Your task to perform on an android device: toggle javascript in the chrome app Image 0: 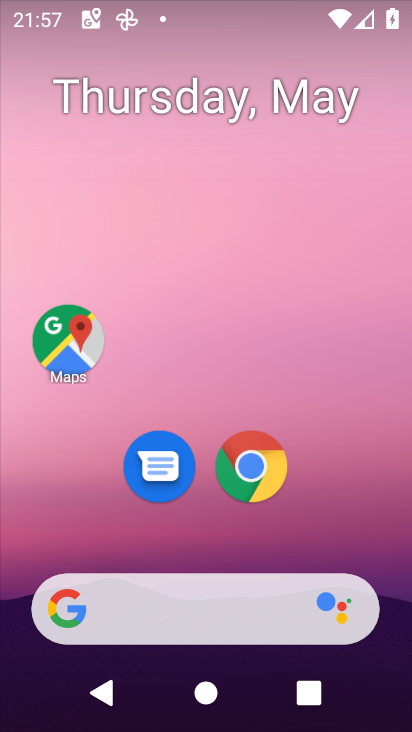
Step 0: click (283, 503)
Your task to perform on an android device: toggle javascript in the chrome app Image 1: 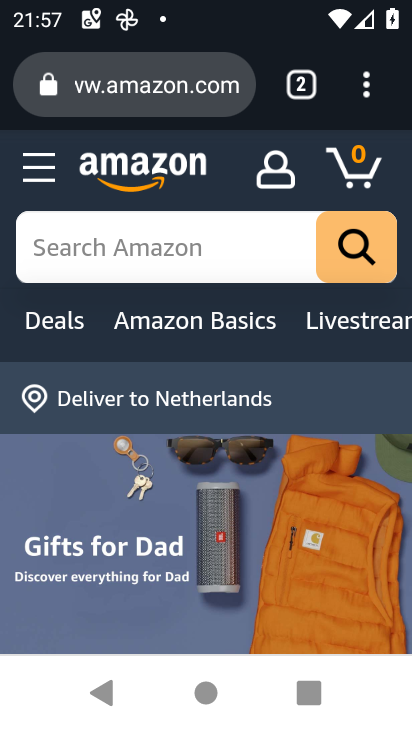
Step 1: click (368, 105)
Your task to perform on an android device: toggle javascript in the chrome app Image 2: 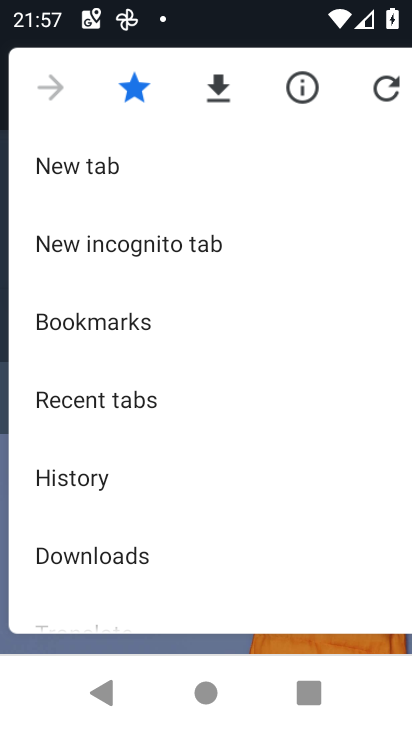
Step 2: drag from (235, 502) to (247, 217)
Your task to perform on an android device: toggle javascript in the chrome app Image 3: 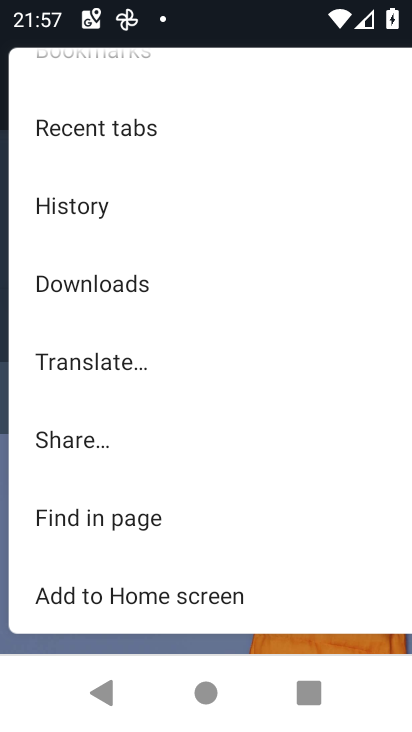
Step 3: drag from (150, 573) to (175, 265)
Your task to perform on an android device: toggle javascript in the chrome app Image 4: 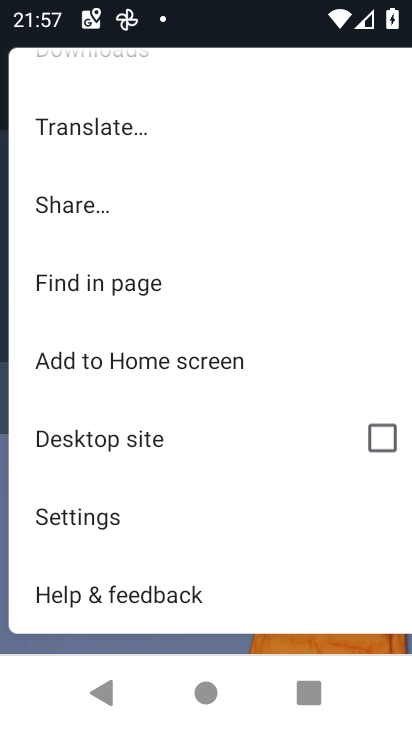
Step 4: click (193, 436)
Your task to perform on an android device: toggle javascript in the chrome app Image 5: 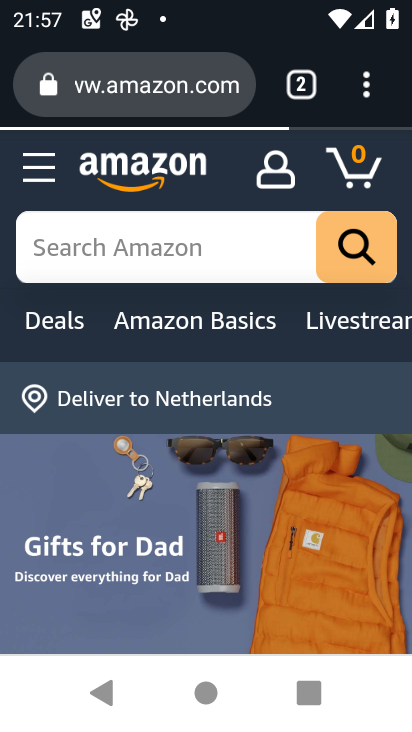
Step 5: task complete